Your task to perform on an android device: What's the weather? Image 0: 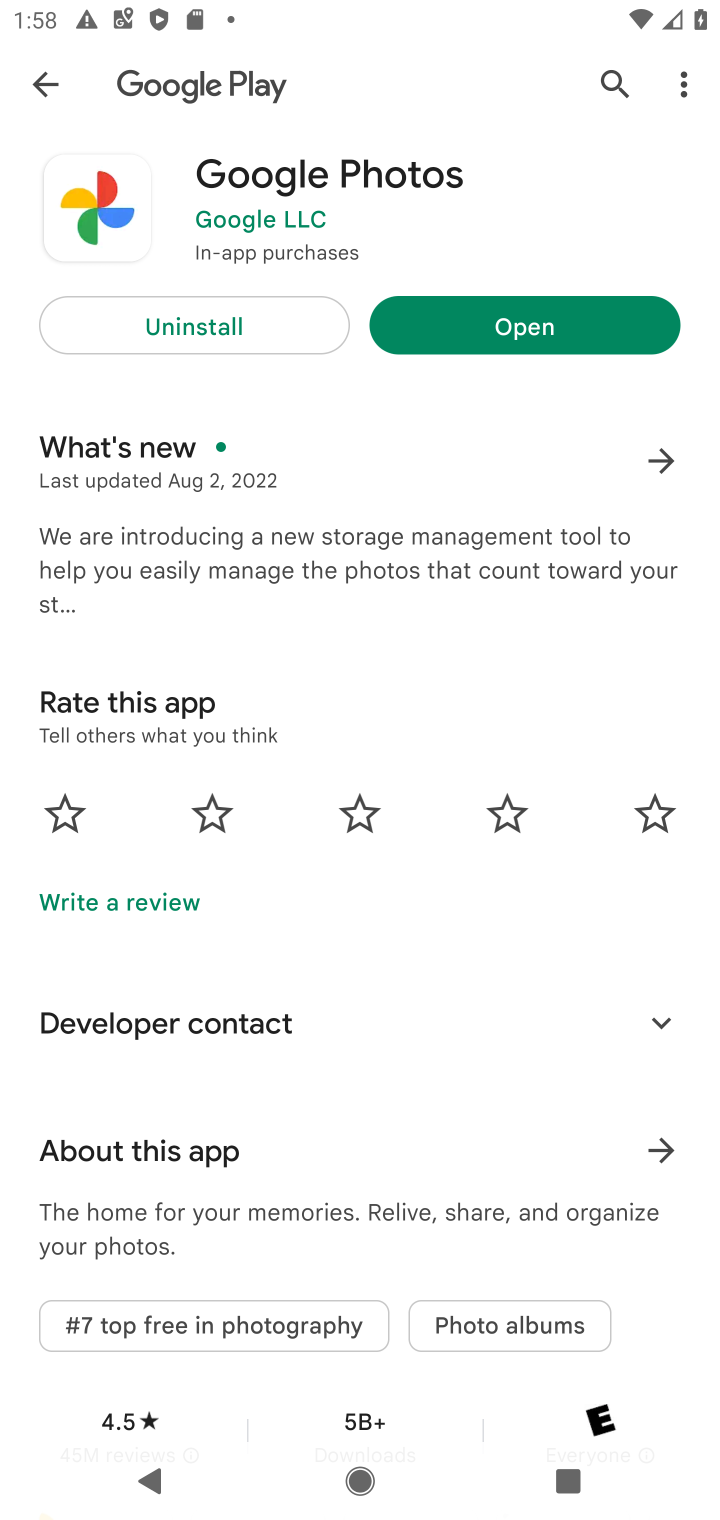
Step 0: press home button
Your task to perform on an android device: What's the weather? Image 1: 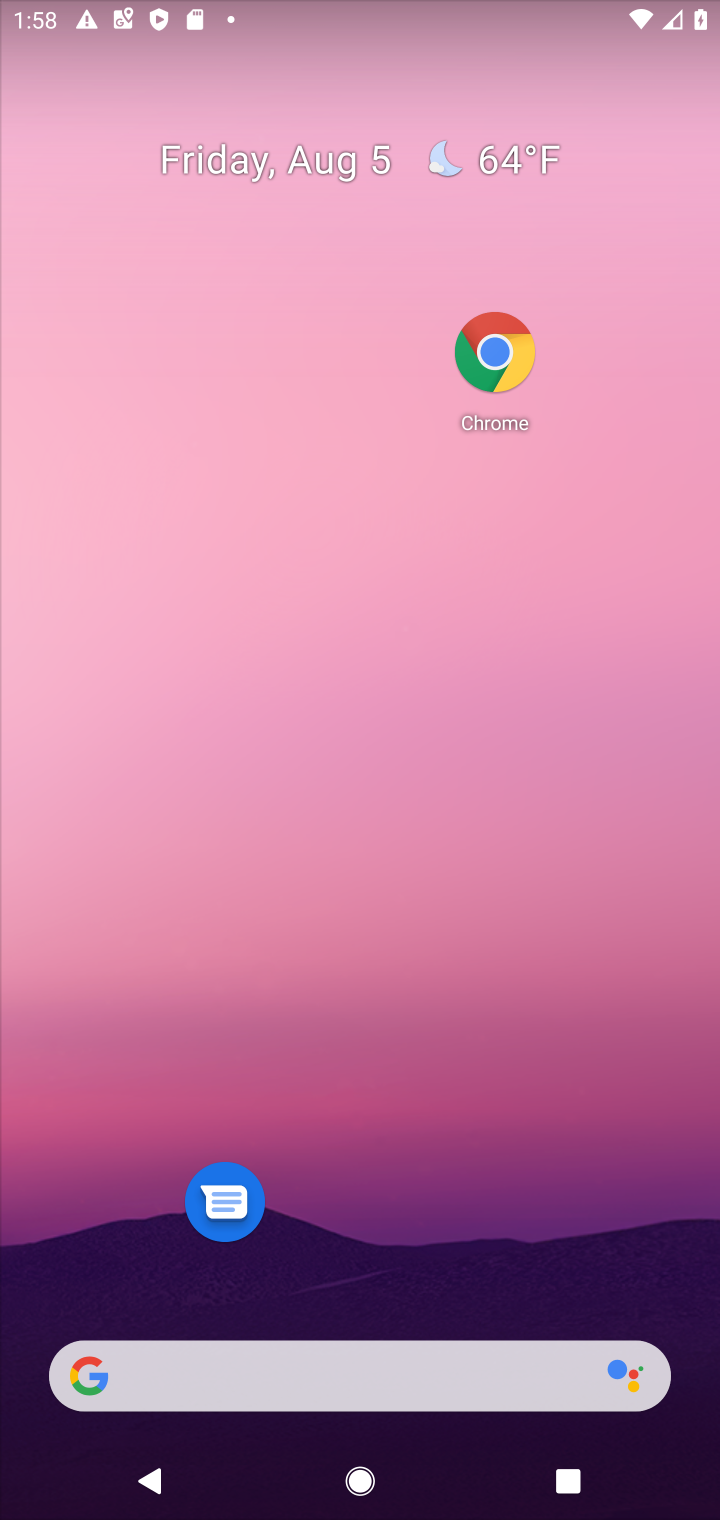
Step 1: click (499, 150)
Your task to perform on an android device: What's the weather? Image 2: 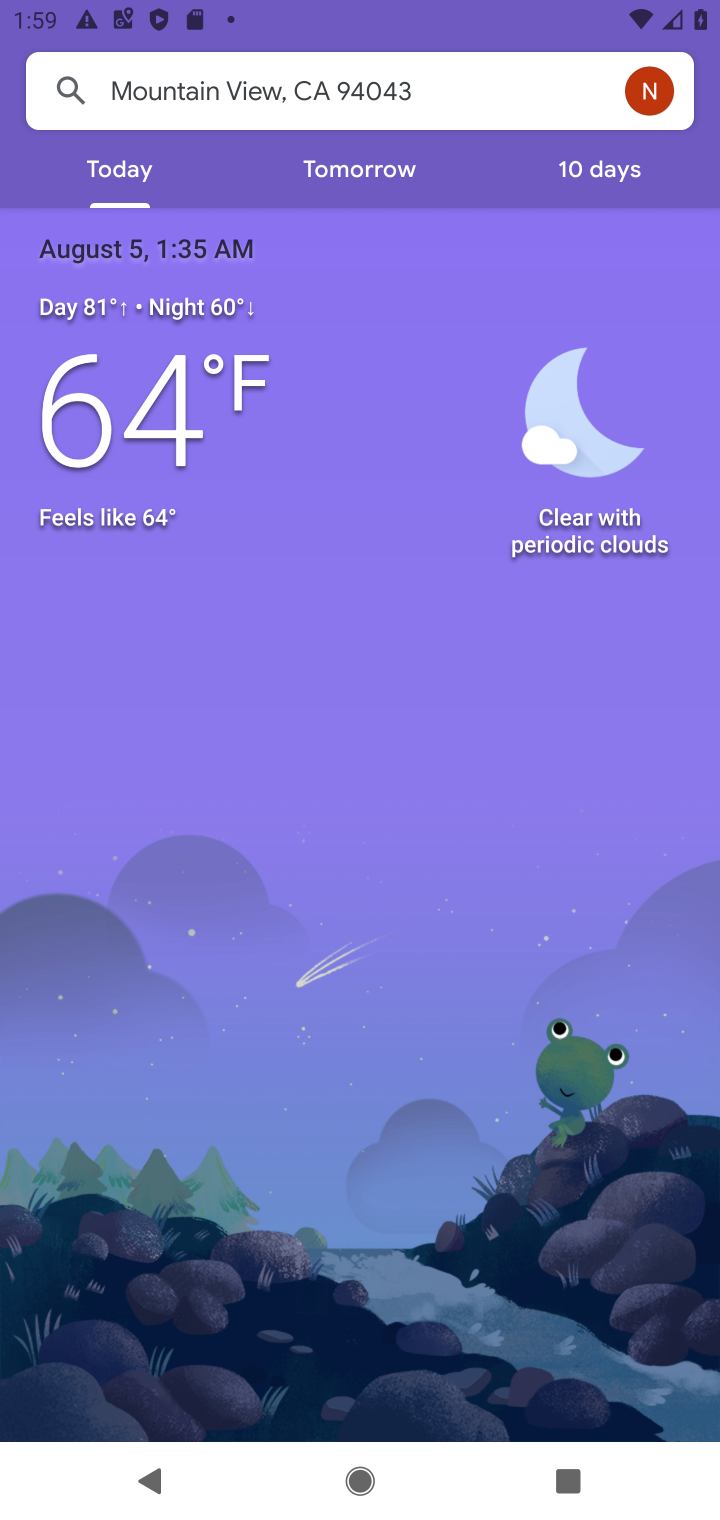
Step 2: task complete